Your task to perform on an android device: toggle improve location accuracy Image 0: 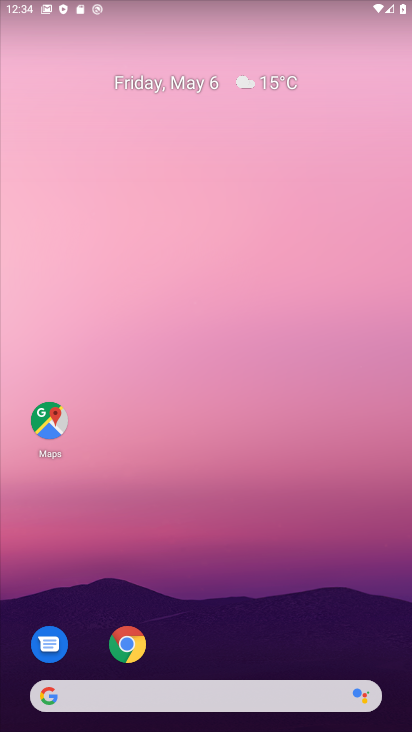
Step 0: drag from (208, 602) to (313, 80)
Your task to perform on an android device: toggle improve location accuracy Image 1: 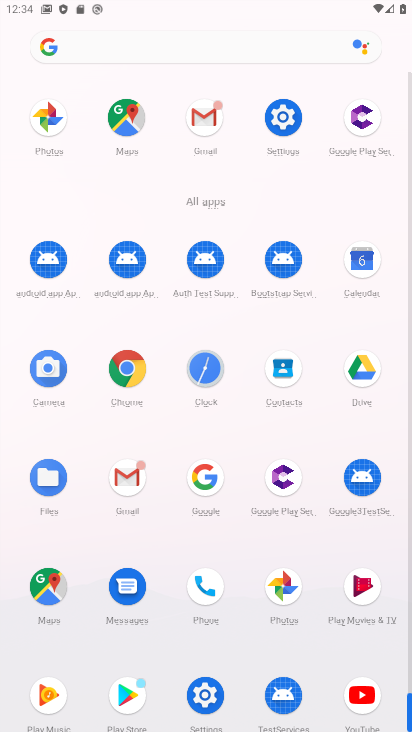
Step 1: drag from (181, 619) to (274, 315)
Your task to perform on an android device: toggle improve location accuracy Image 2: 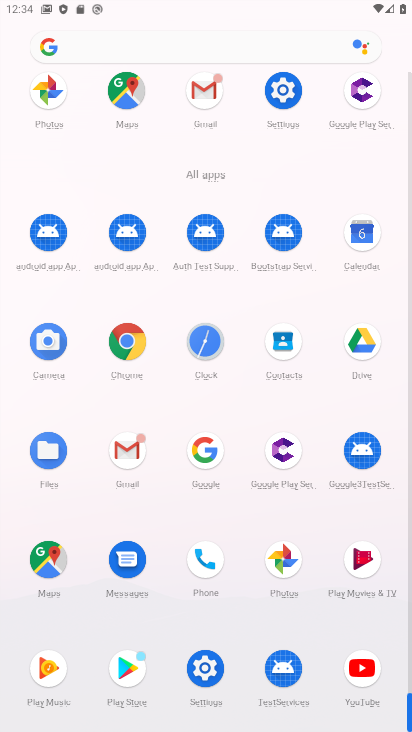
Step 2: click (196, 654)
Your task to perform on an android device: toggle improve location accuracy Image 3: 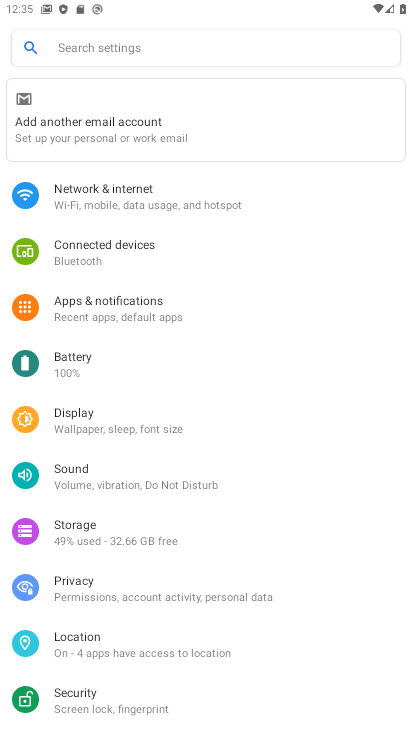
Step 3: drag from (126, 647) to (240, 174)
Your task to perform on an android device: toggle improve location accuracy Image 4: 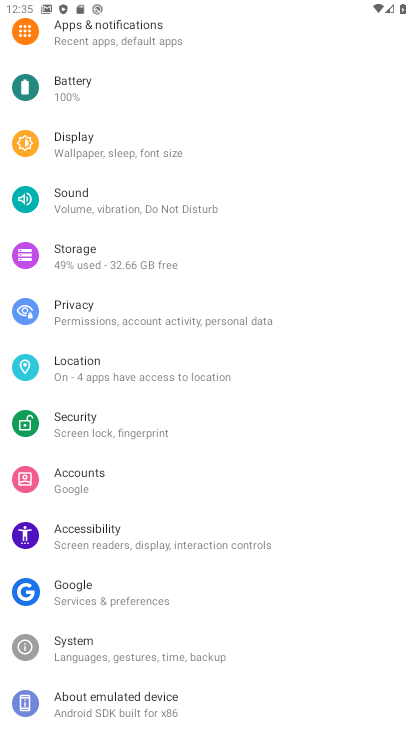
Step 4: click (122, 371)
Your task to perform on an android device: toggle improve location accuracy Image 5: 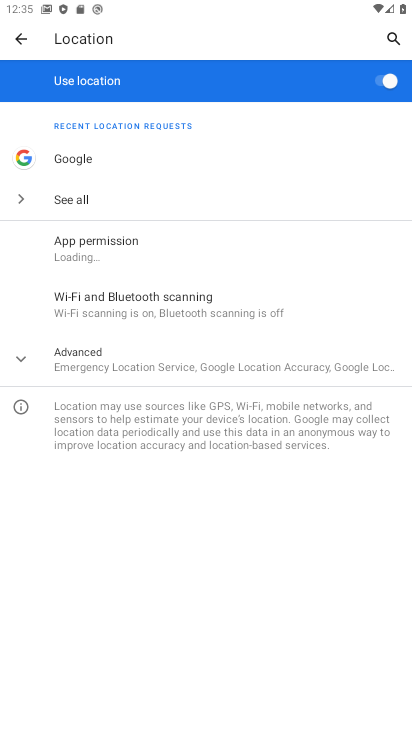
Step 5: click (138, 361)
Your task to perform on an android device: toggle improve location accuracy Image 6: 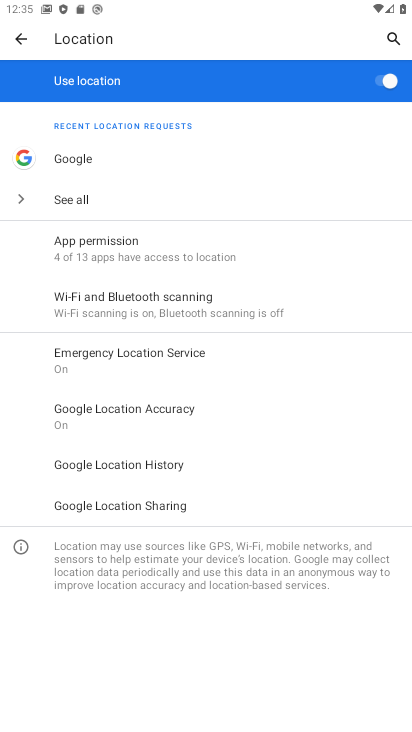
Step 6: click (176, 427)
Your task to perform on an android device: toggle improve location accuracy Image 7: 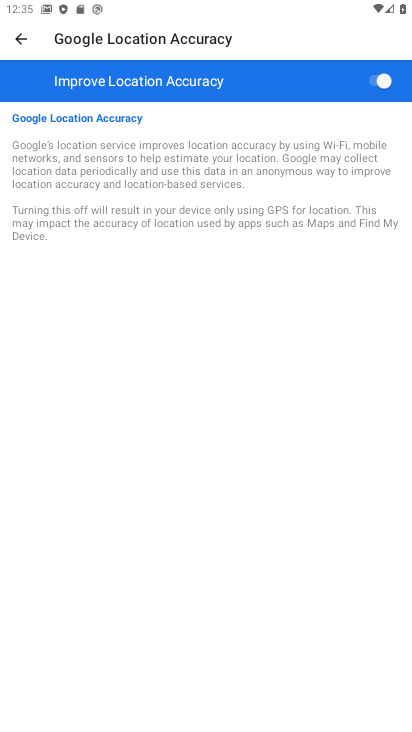
Step 7: click (366, 74)
Your task to perform on an android device: toggle improve location accuracy Image 8: 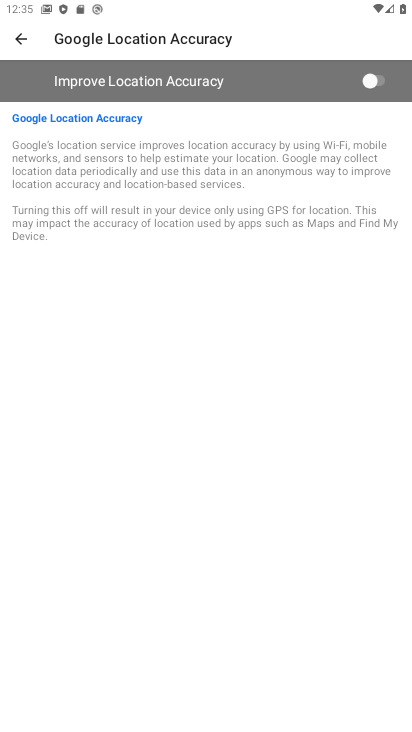
Step 8: task complete